Your task to perform on an android device: change the clock display to digital Image 0: 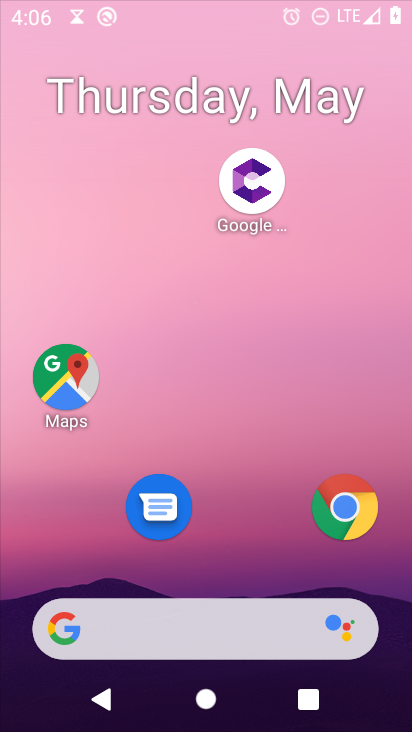
Step 0: press home button
Your task to perform on an android device: change the clock display to digital Image 1: 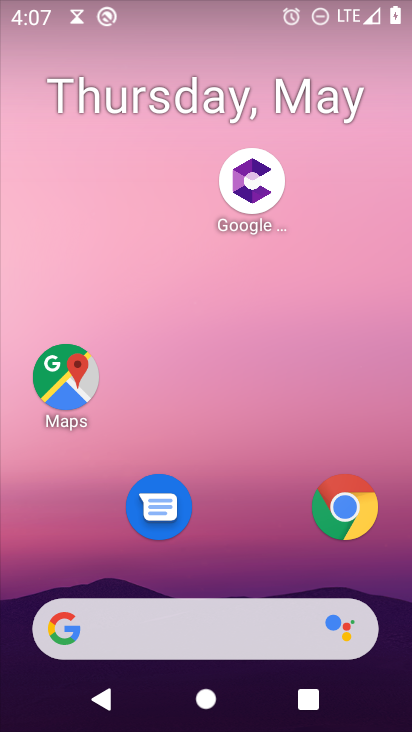
Step 1: drag from (287, 549) to (259, 159)
Your task to perform on an android device: change the clock display to digital Image 2: 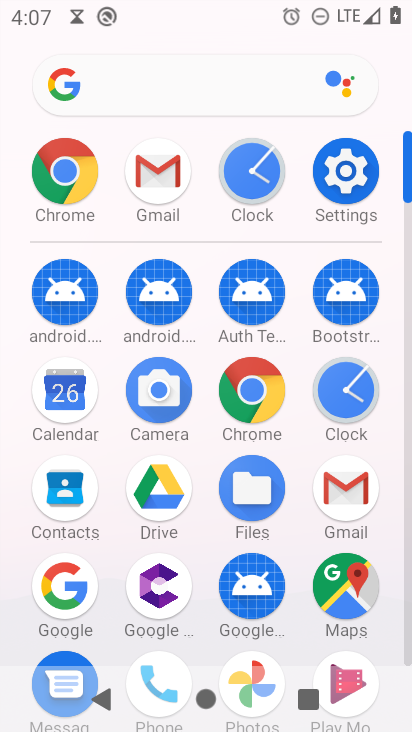
Step 2: click (347, 401)
Your task to perform on an android device: change the clock display to digital Image 3: 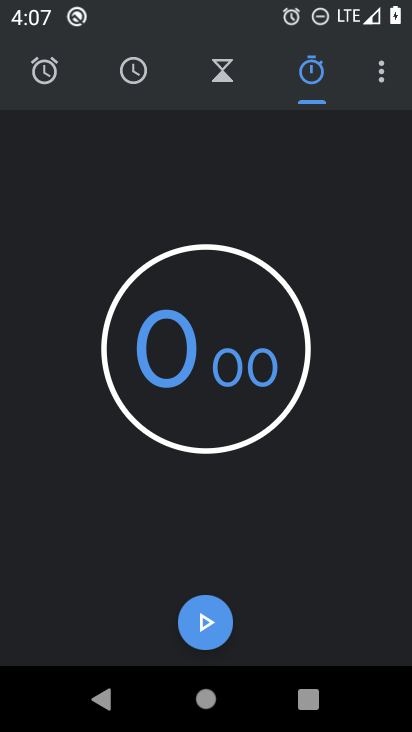
Step 3: click (384, 89)
Your task to perform on an android device: change the clock display to digital Image 4: 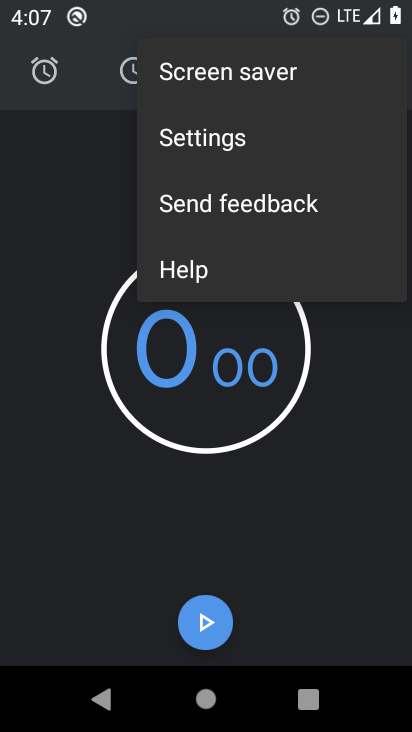
Step 4: click (220, 144)
Your task to perform on an android device: change the clock display to digital Image 5: 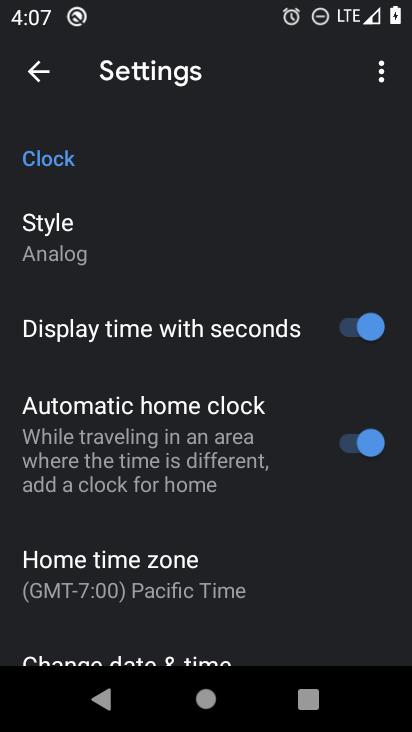
Step 5: click (46, 237)
Your task to perform on an android device: change the clock display to digital Image 6: 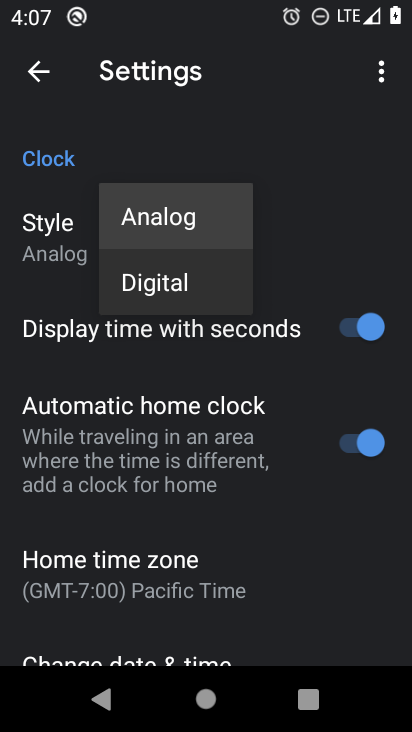
Step 6: click (161, 297)
Your task to perform on an android device: change the clock display to digital Image 7: 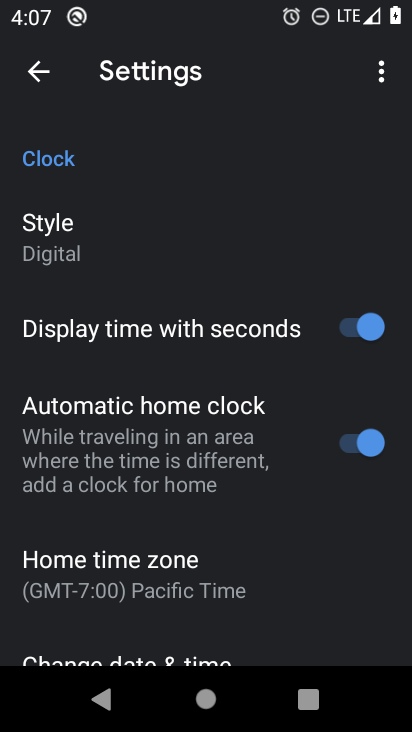
Step 7: task complete